Your task to perform on an android device: see tabs open on other devices in the chrome app Image 0: 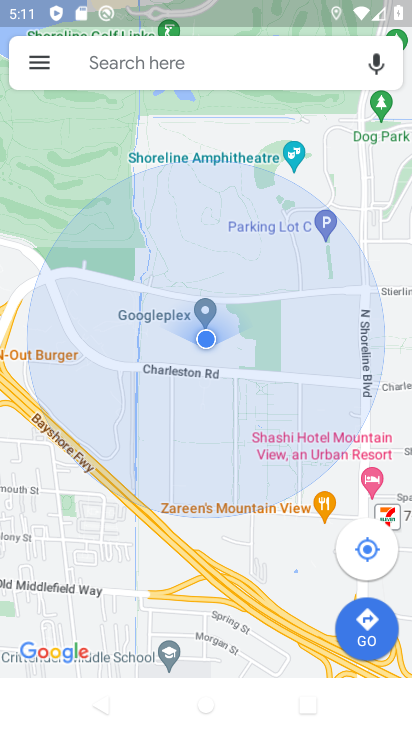
Step 0: press home button
Your task to perform on an android device: see tabs open on other devices in the chrome app Image 1: 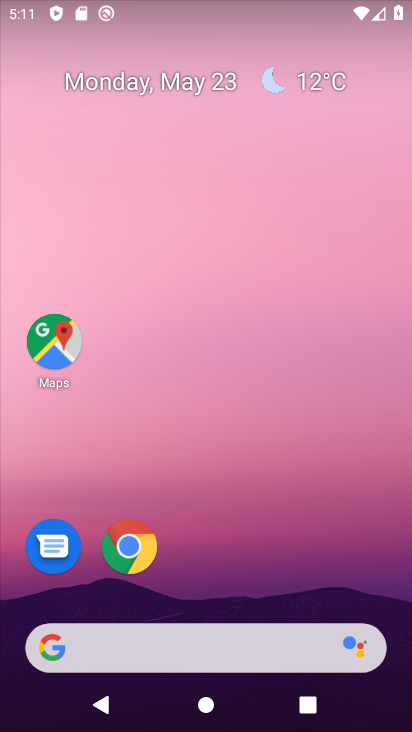
Step 1: click (122, 547)
Your task to perform on an android device: see tabs open on other devices in the chrome app Image 2: 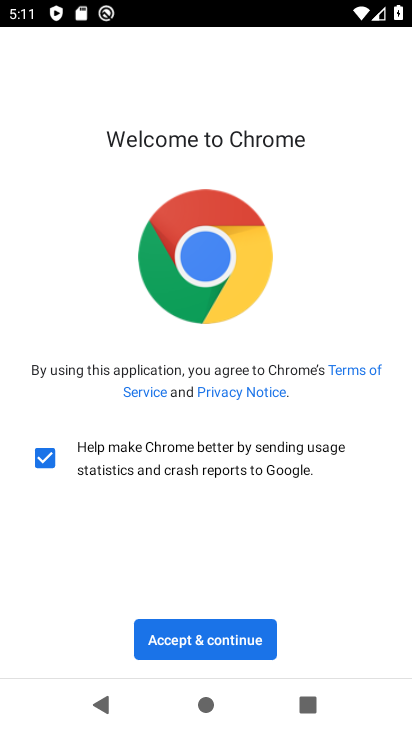
Step 2: click (175, 637)
Your task to perform on an android device: see tabs open on other devices in the chrome app Image 3: 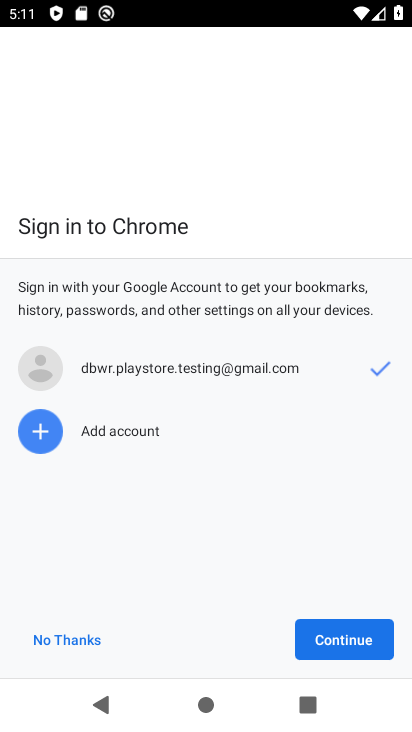
Step 3: click (354, 650)
Your task to perform on an android device: see tabs open on other devices in the chrome app Image 4: 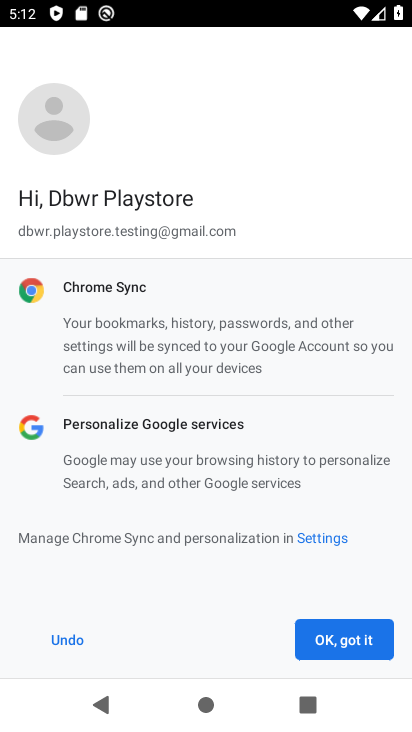
Step 4: click (354, 650)
Your task to perform on an android device: see tabs open on other devices in the chrome app Image 5: 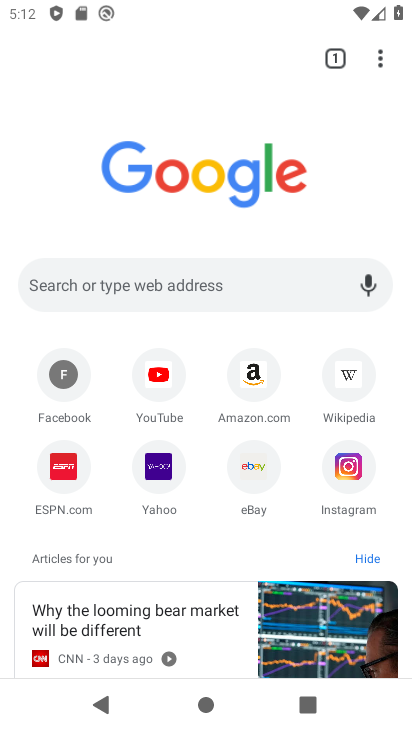
Step 5: task complete